Your task to perform on an android device: toggle javascript in the chrome app Image 0: 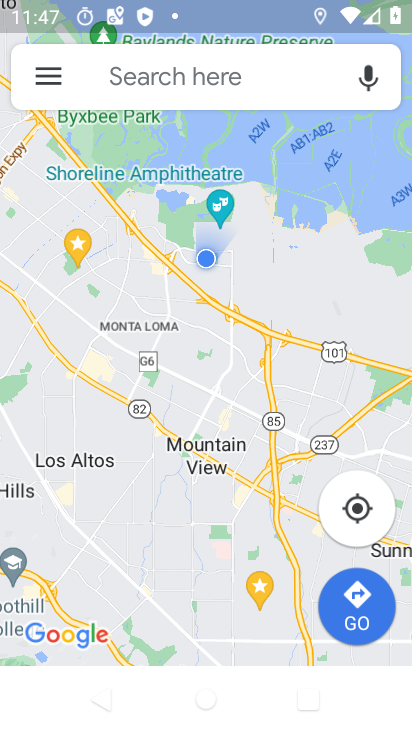
Step 0: press home button
Your task to perform on an android device: toggle javascript in the chrome app Image 1: 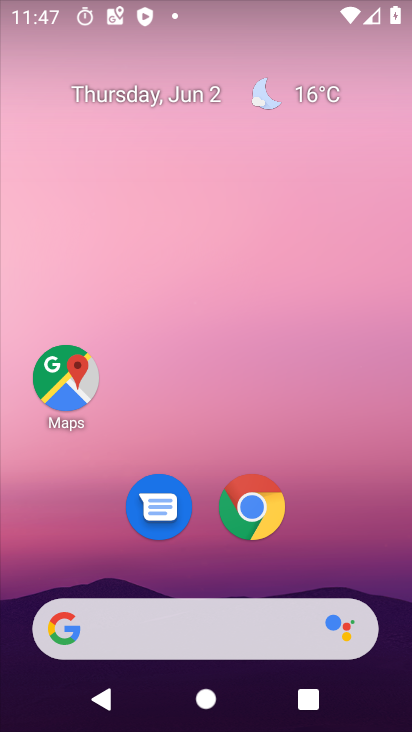
Step 1: drag from (393, 618) to (362, 318)
Your task to perform on an android device: toggle javascript in the chrome app Image 2: 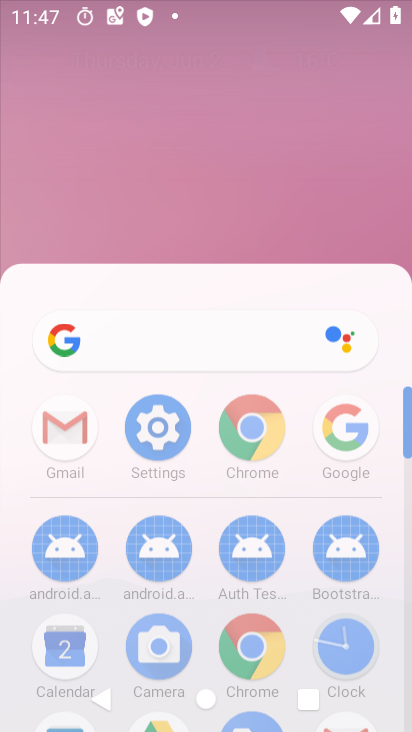
Step 2: click (304, 72)
Your task to perform on an android device: toggle javascript in the chrome app Image 3: 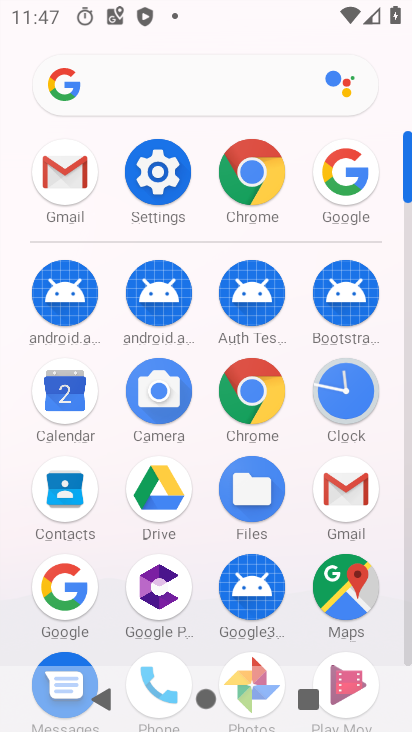
Step 3: click (279, 400)
Your task to perform on an android device: toggle javascript in the chrome app Image 4: 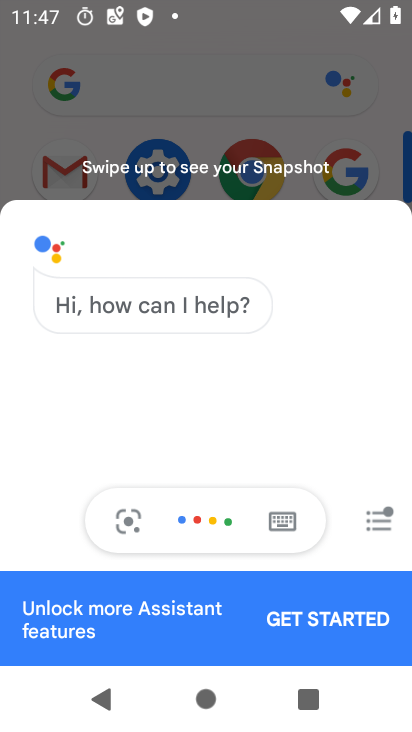
Step 4: press home button
Your task to perform on an android device: toggle javascript in the chrome app Image 5: 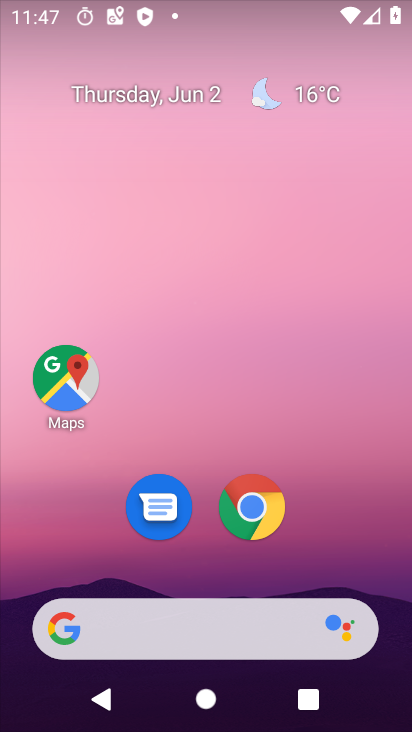
Step 5: drag from (400, 635) to (285, 94)
Your task to perform on an android device: toggle javascript in the chrome app Image 6: 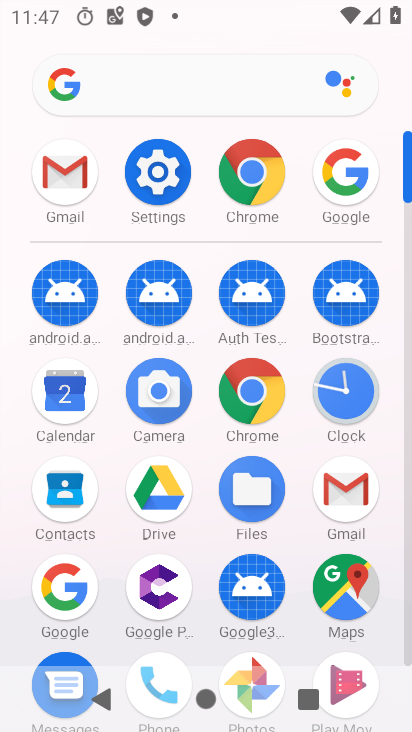
Step 6: click (268, 397)
Your task to perform on an android device: toggle javascript in the chrome app Image 7: 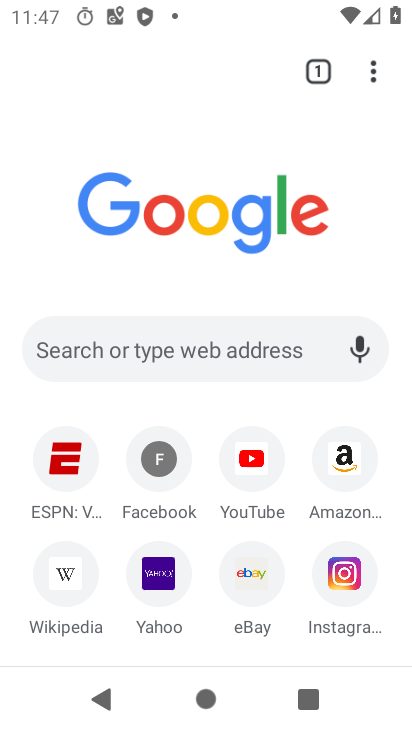
Step 7: click (370, 65)
Your task to perform on an android device: toggle javascript in the chrome app Image 8: 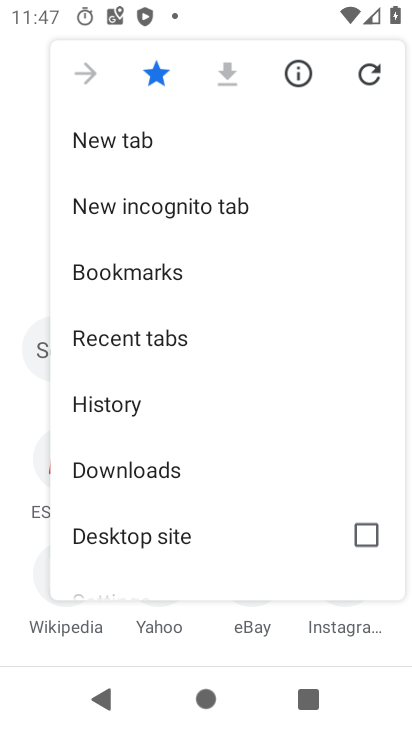
Step 8: drag from (151, 567) to (203, 368)
Your task to perform on an android device: toggle javascript in the chrome app Image 9: 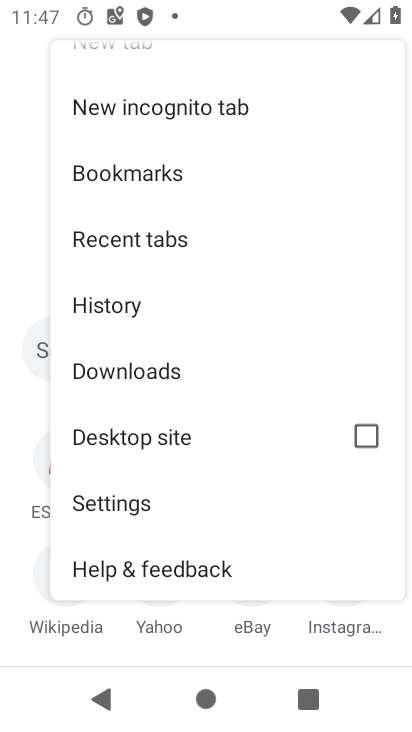
Step 9: click (128, 508)
Your task to perform on an android device: toggle javascript in the chrome app Image 10: 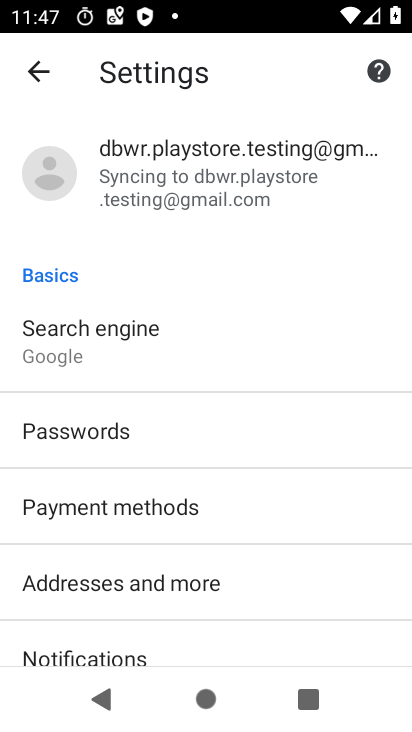
Step 10: drag from (207, 632) to (234, 237)
Your task to perform on an android device: toggle javascript in the chrome app Image 11: 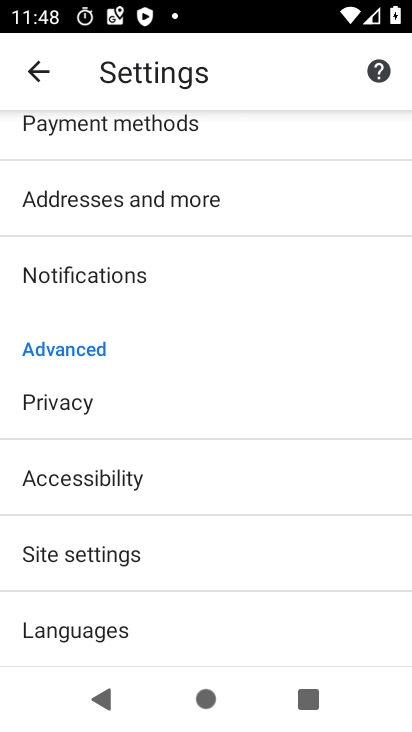
Step 11: click (192, 545)
Your task to perform on an android device: toggle javascript in the chrome app Image 12: 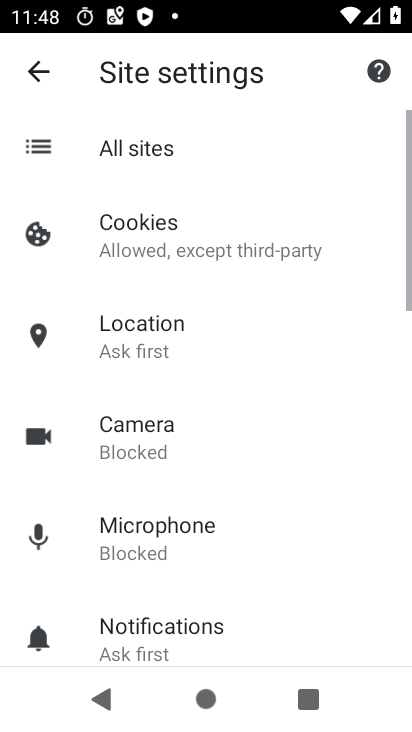
Step 12: drag from (195, 594) to (235, 386)
Your task to perform on an android device: toggle javascript in the chrome app Image 13: 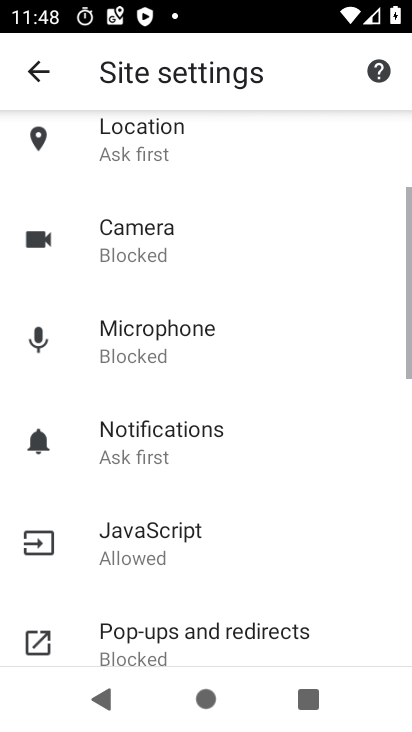
Step 13: click (243, 195)
Your task to perform on an android device: toggle javascript in the chrome app Image 14: 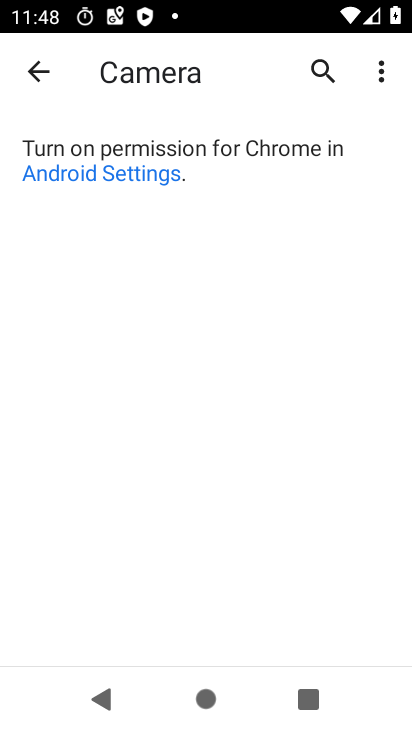
Step 14: press back button
Your task to perform on an android device: toggle javascript in the chrome app Image 15: 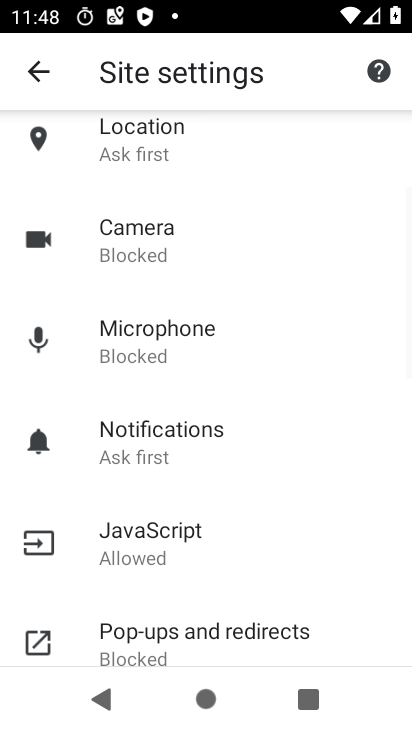
Step 15: click (196, 555)
Your task to perform on an android device: toggle javascript in the chrome app Image 16: 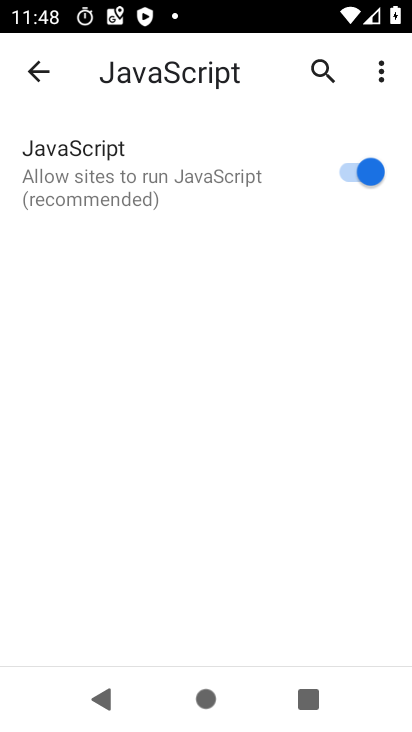
Step 16: click (356, 176)
Your task to perform on an android device: toggle javascript in the chrome app Image 17: 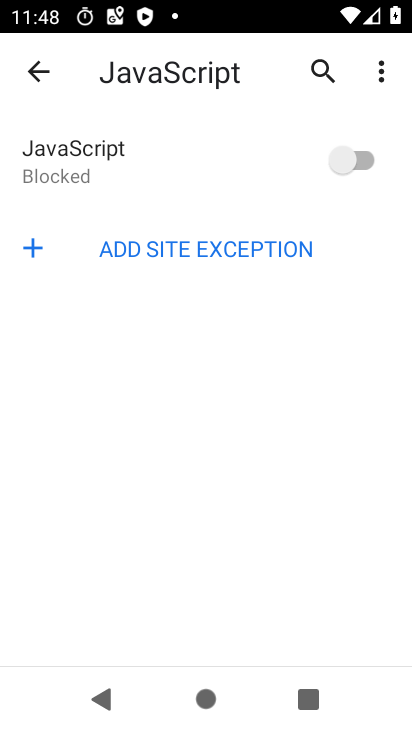
Step 17: task complete